Your task to perform on an android device: open a bookmark in the chrome app Image 0: 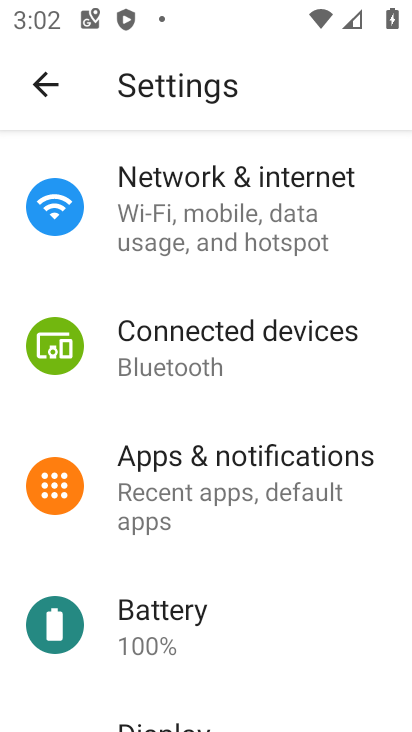
Step 0: press home button
Your task to perform on an android device: open a bookmark in the chrome app Image 1: 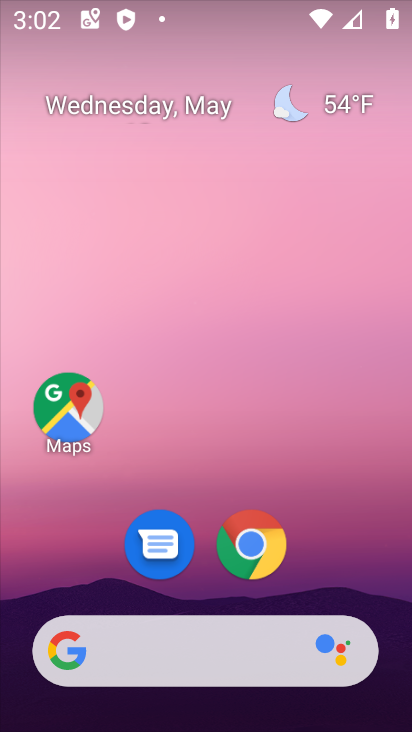
Step 1: click (269, 553)
Your task to perform on an android device: open a bookmark in the chrome app Image 2: 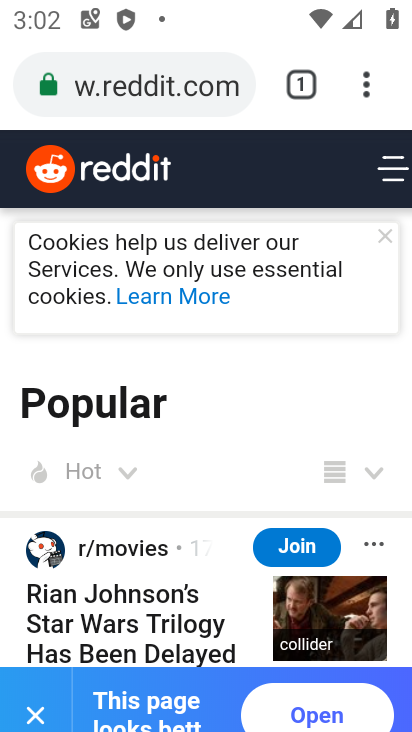
Step 2: press home button
Your task to perform on an android device: open a bookmark in the chrome app Image 3: 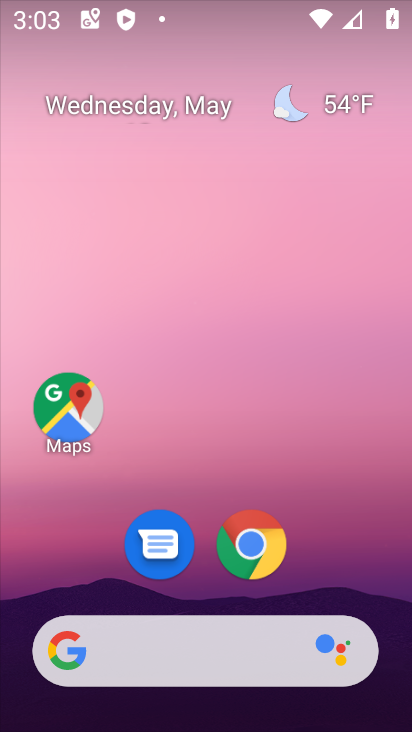
Step 3: click (257, 556)
Your task to perform on an android device: open a bookmark in the chrome app Image 4: 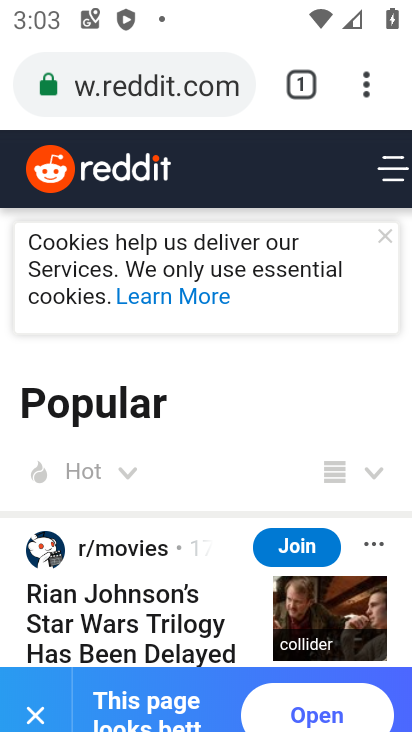
Step 4: click (357, 100)
Your task to perform on an android device: open a bookmark in the chrome app Image 5: 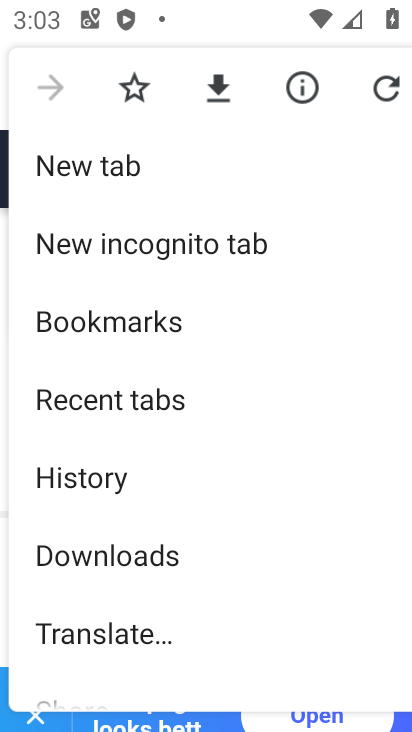
Step 5: click (138, 326)
Your task to perform on an android device: open a bookmark in the chrome app Image 6: 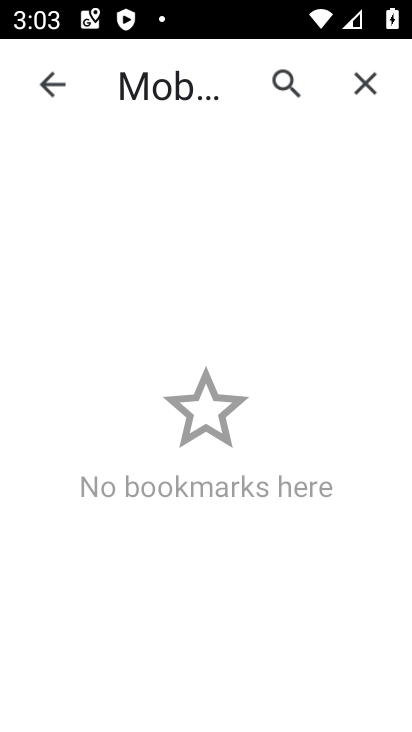
Step 6: task complete